Your task to perform on an android device: open app "Pluto TV - Live TV and Movies" (install if not already installed) Image 0: 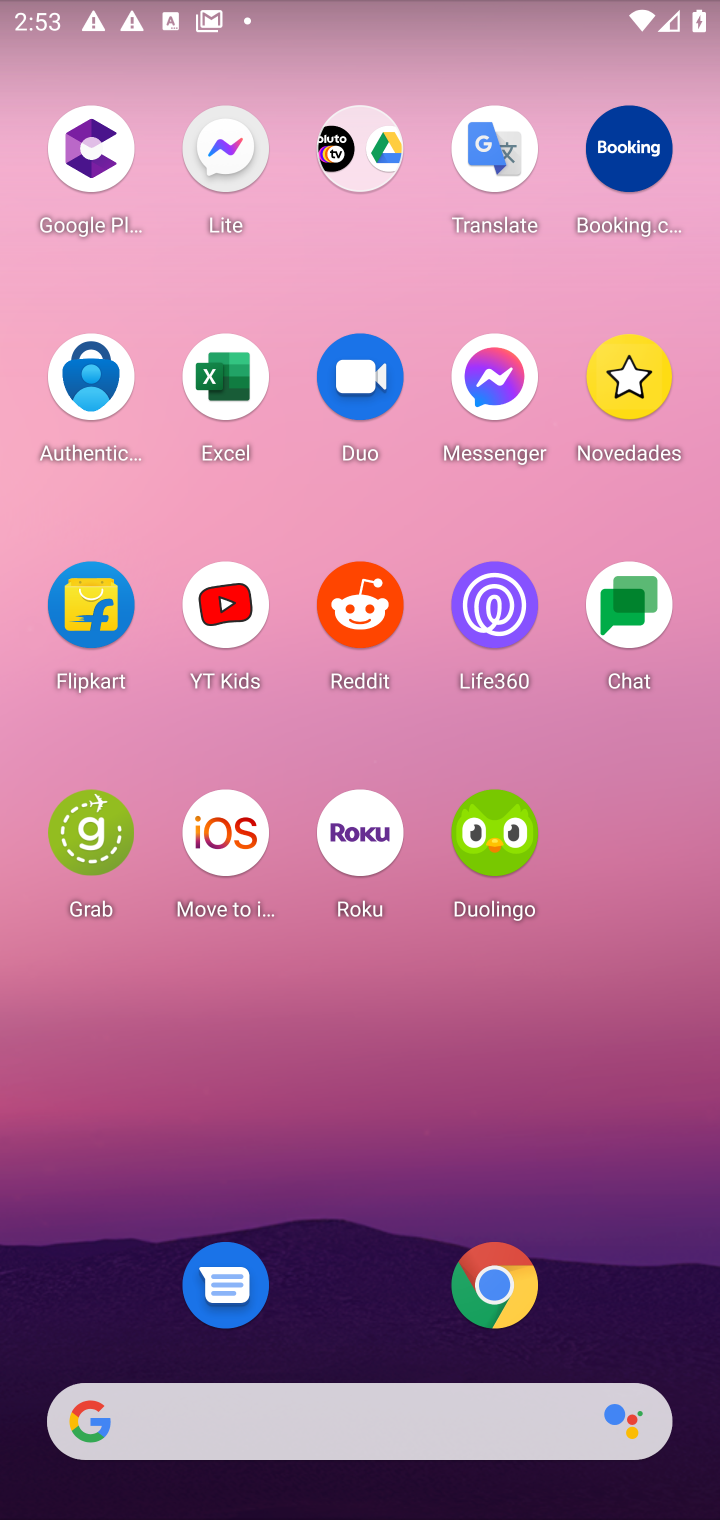
Step 0: drag from (633, 1138) to (173, 157)
Your task to perform on an android device: open app "Pluto TV - Live TV and Movies" (install if not already installed) Image 1: 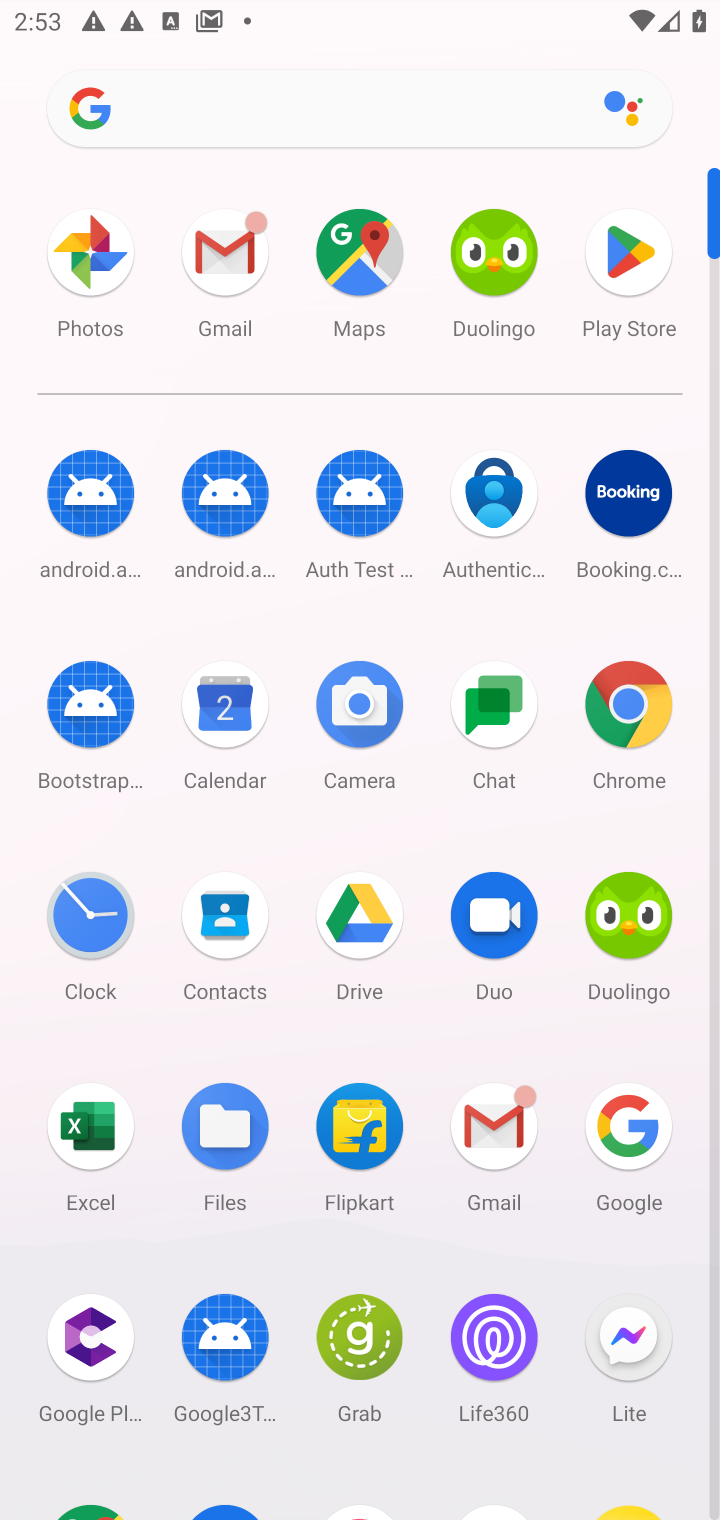
Step 1: drag from (542, 1242) to (478, 534)
Your task to perform on an android device: open app "Pluto TV - Live TV and Movies" (install if not already installed) Image 2: 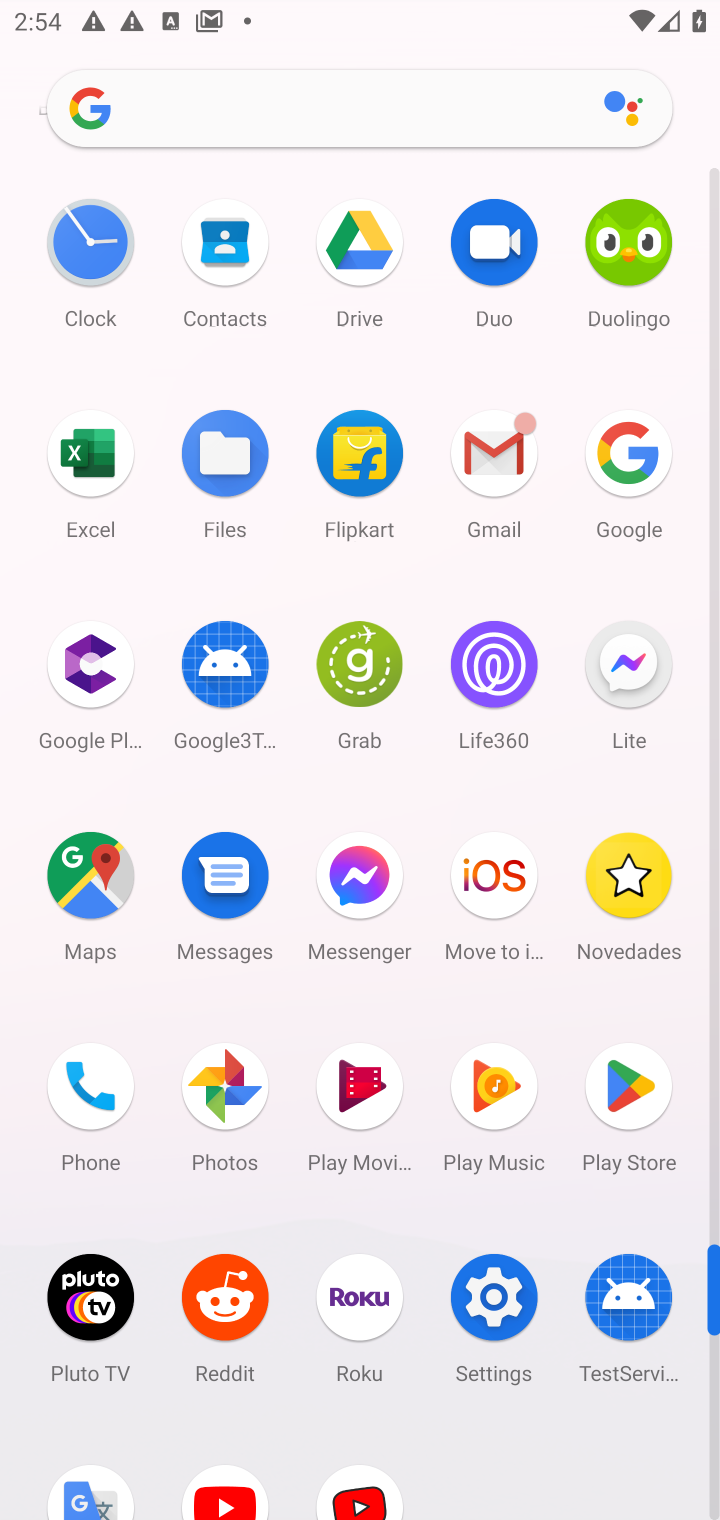
Step 2: click (631, 1086)
Your task to perform on an android device: open app "Pluto TV - Live TV and Movies" (install if not already installed) Image 3: 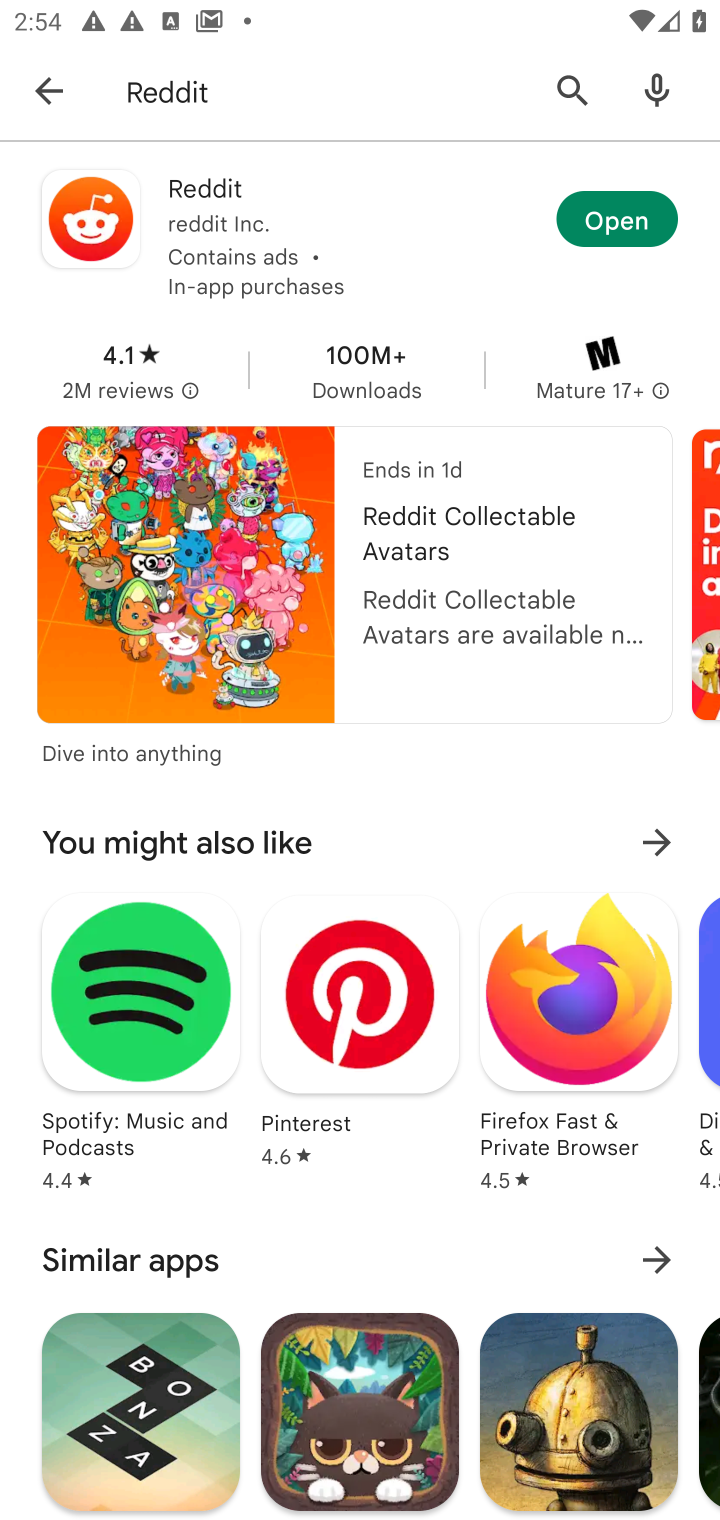
Step 3: click (367, 90)
Your task to perform on an android device: open app "Pluto TV - Live TV and Movies" (install if not already installed) Image 4: 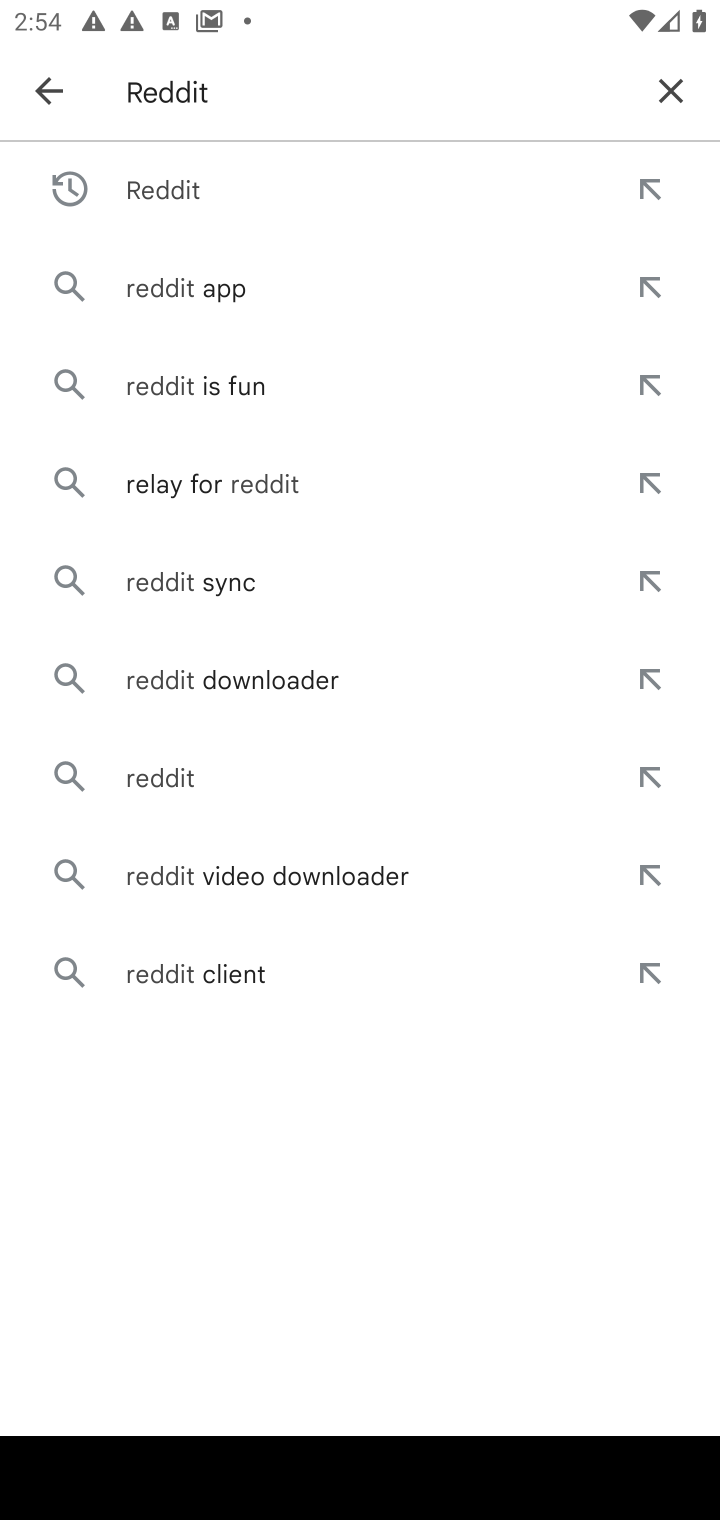
Step 4: click (673, 106)
Your task to perform on an android device: open app "Pluto TV - Live TV and Movies" (install if not already installed) Image 5: 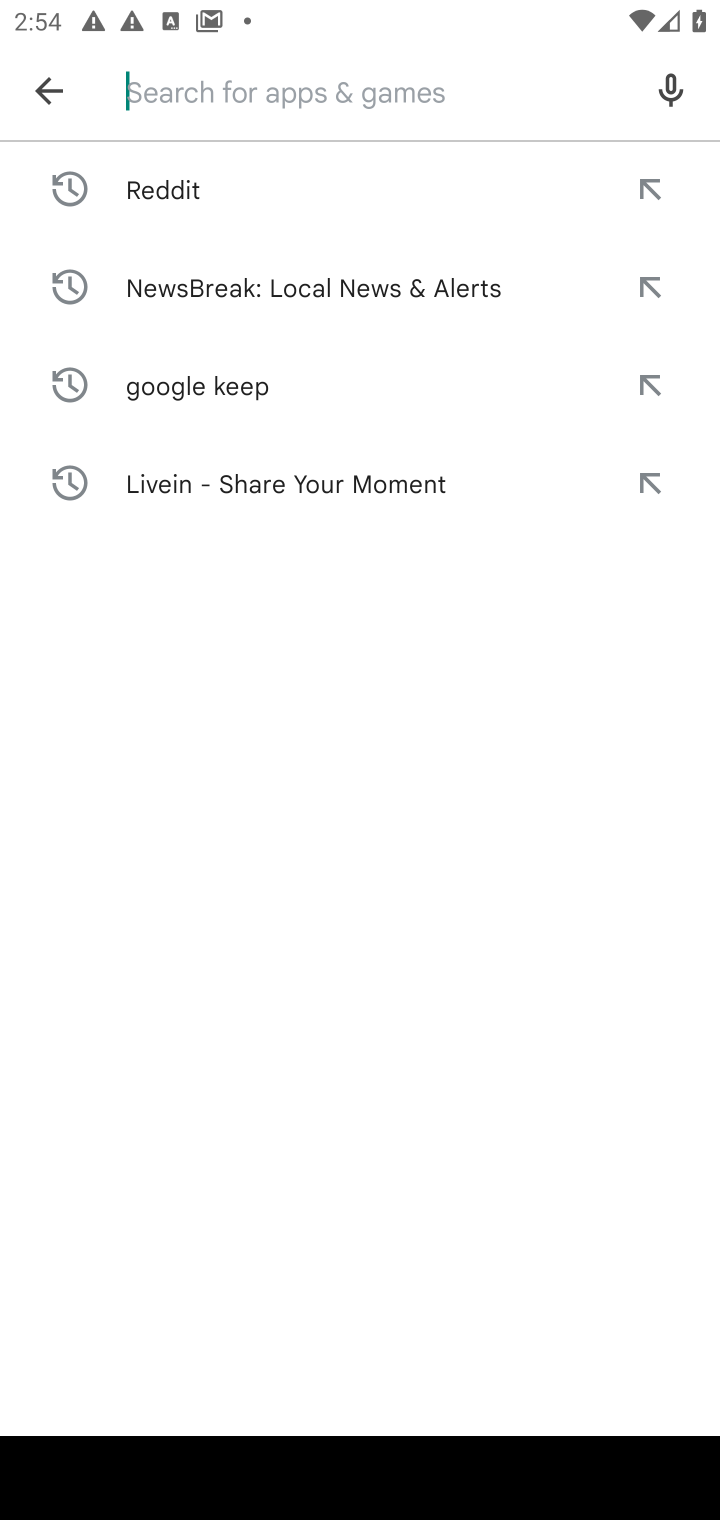
Step 5: type "Pluto TV - Live and Movies"
Your task to perform on an android device: open app "Pluto TV - Live TV and Movies" (install if not already installed) Image 6: 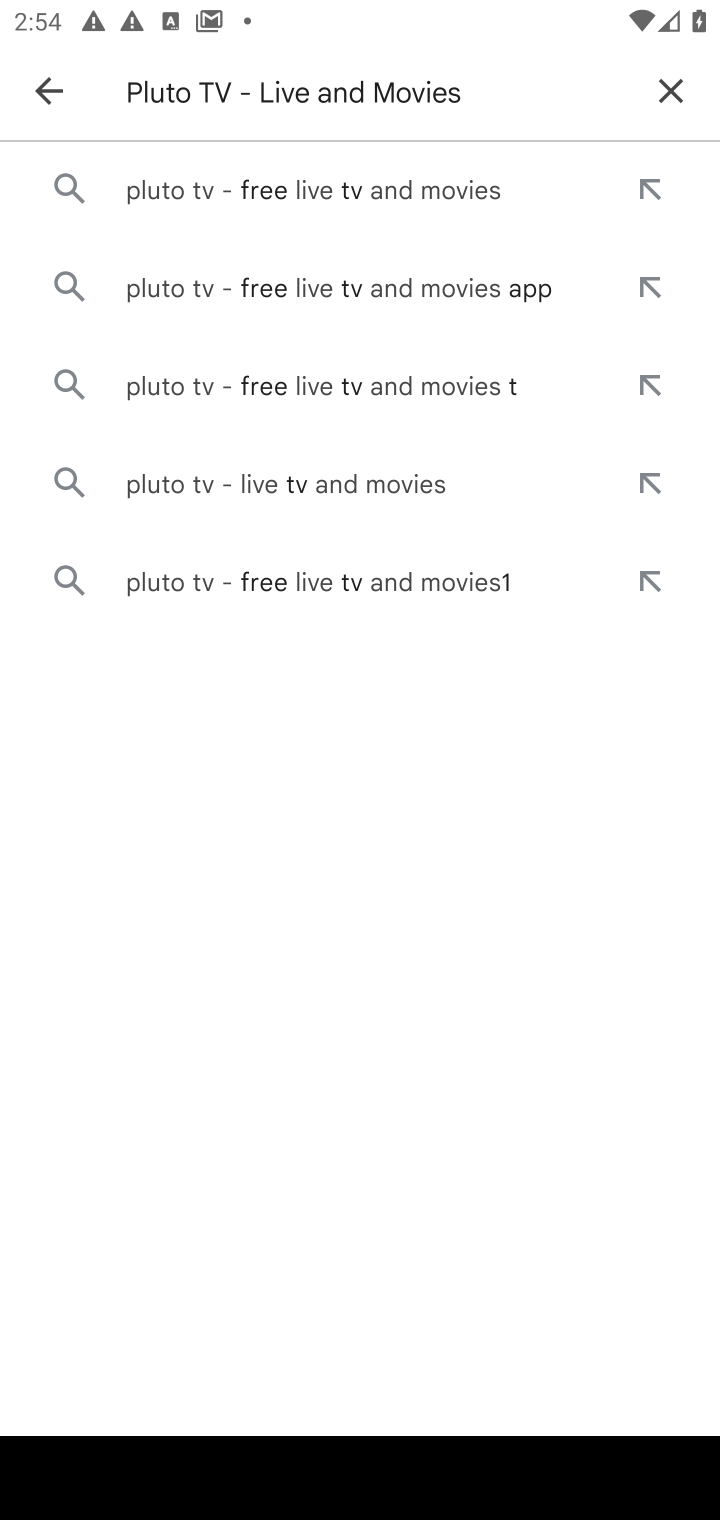
Step 6: press enter
Your task to perform on an android device: open app "Pluto TV - Live TV and Movies" (install if not already installed) Image 7: 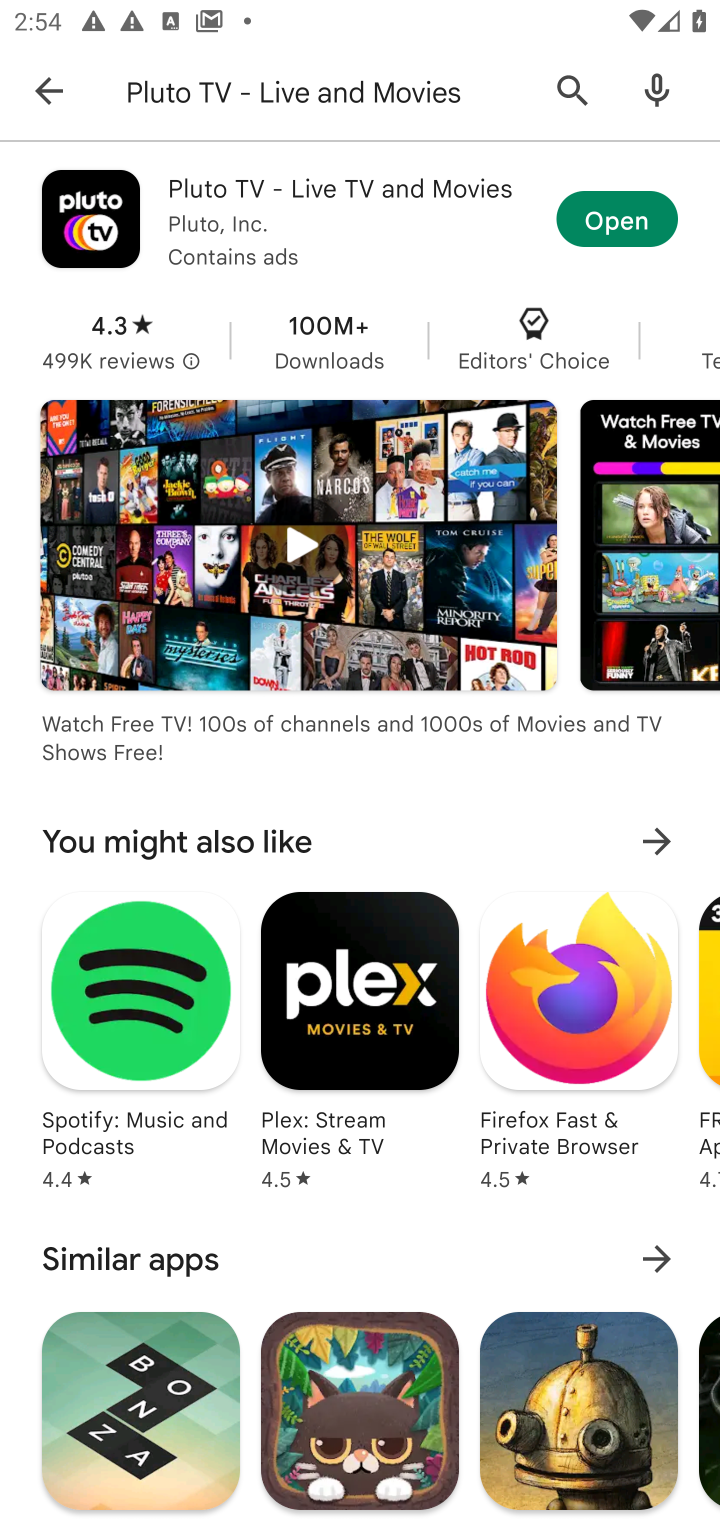
Step 7: click (638, 239)
Your task to perform on an android device: open app "Pluto TV - Live TV and Movies" (install if not already installed) Image 8: 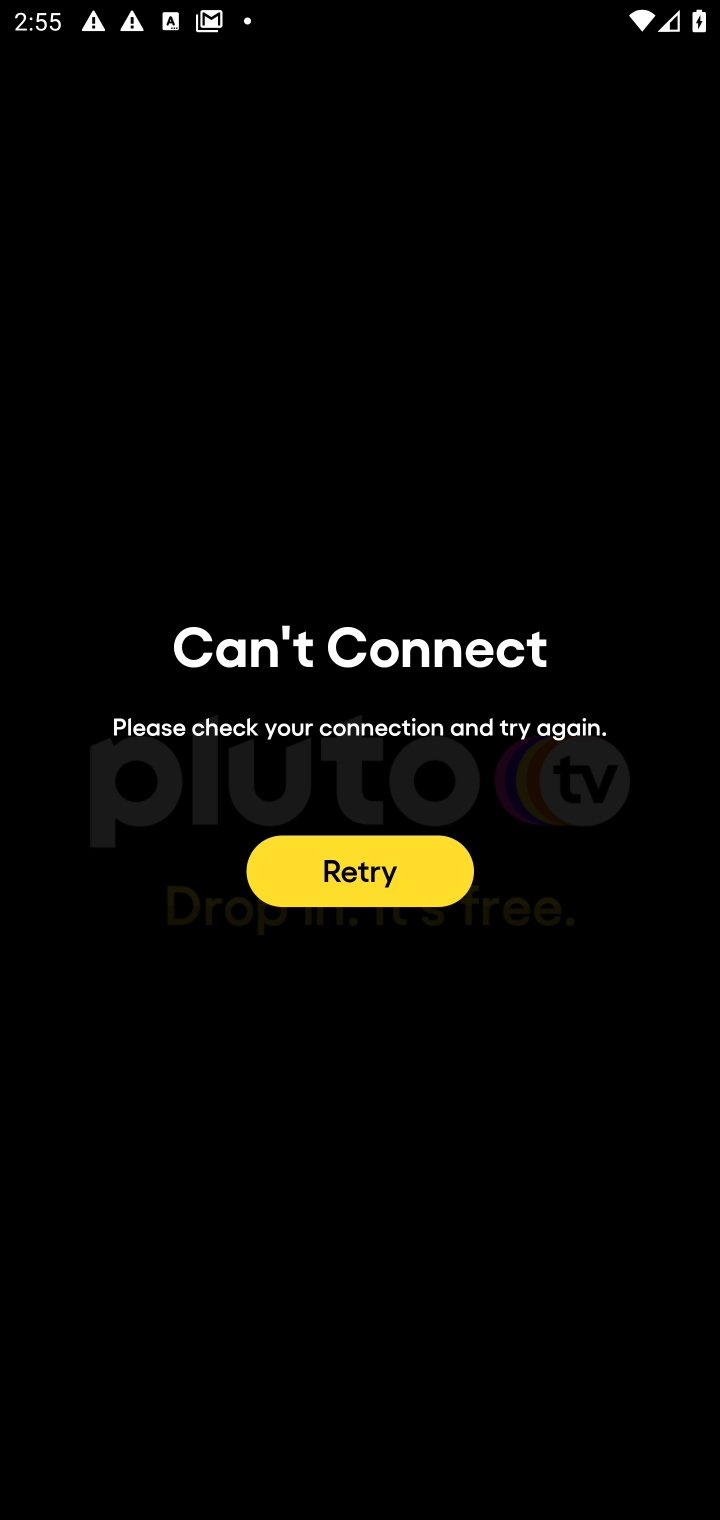
Step 8: task complete